Your task to perform on an android device: Go to wifi settings Image 0: 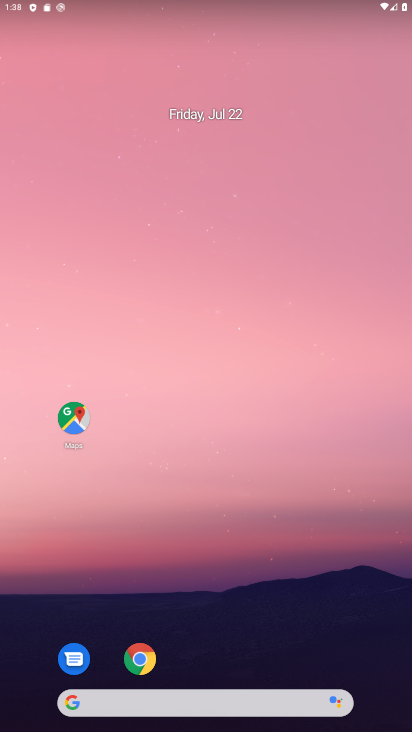
Step 0: drag from (286, 707) to (163, 125)
Your task to perform on an android device: Go to wifi settings Image 1: 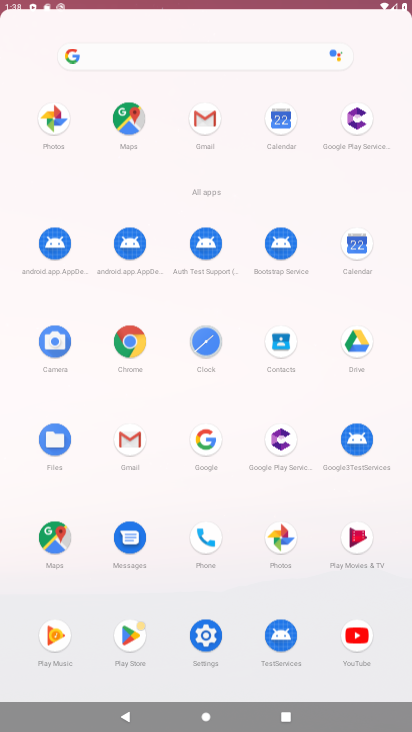
Step 1: drag from (202, 289) to (189, 158)
Your task to perform on an android device: Go to wifi settings Image 2: 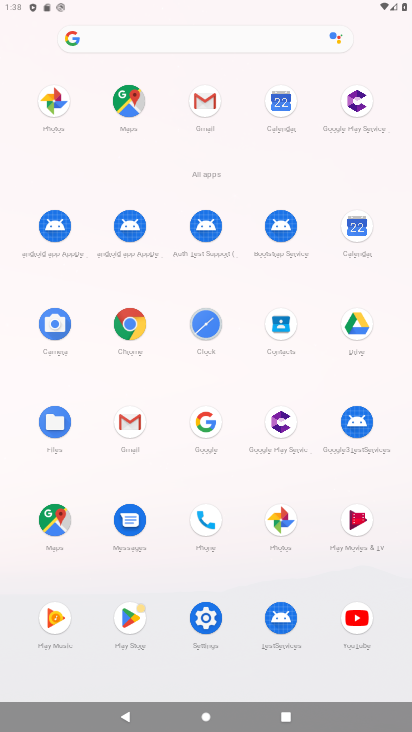
Step 2: drag from (259, 192) to (171, 52)
Your task to perform on an android device: Go to wifi settings Image 3: 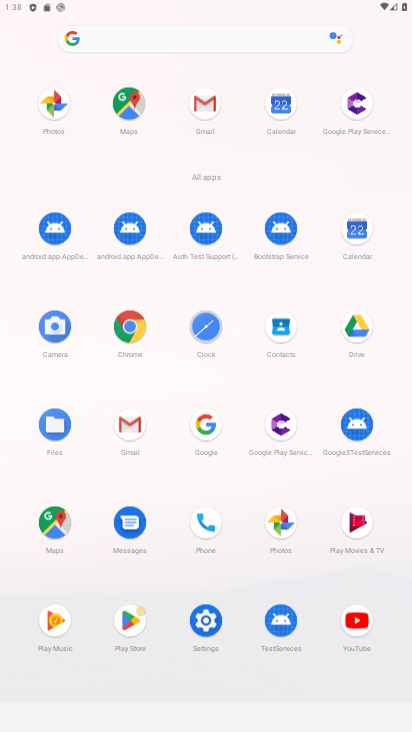
Step 3: drag from (187, 295) to (171, 0)
Your task to perform on an android device: Go to wifi settings Image 4: 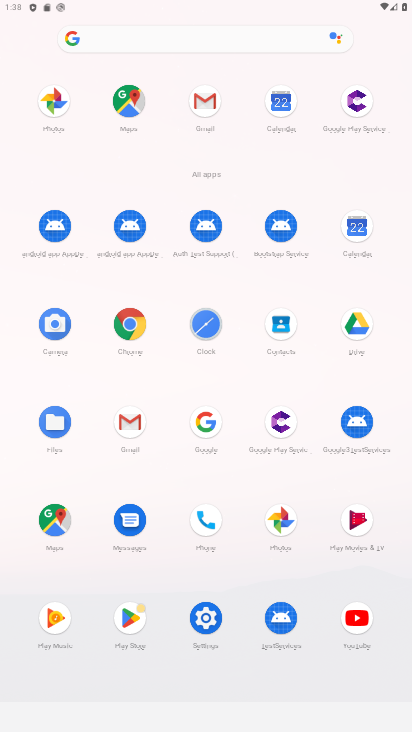
Step 4: click (207, 618)
Your task to perform on an android device: Go to wifi settings Image 5: 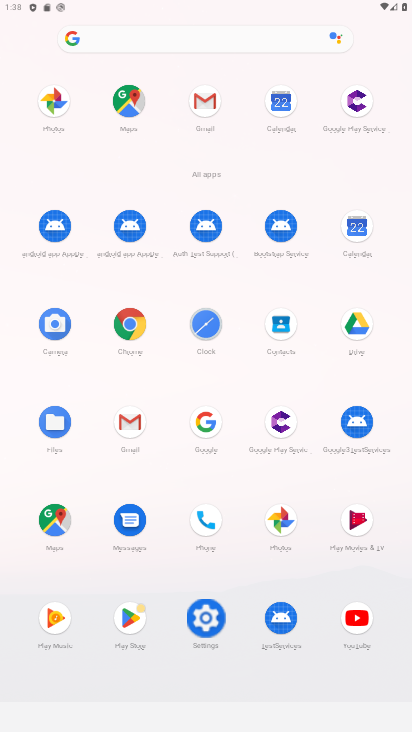
Step 5: click (207, 618)
Your task to perform on an android device: Go to wifi settings Image 6: 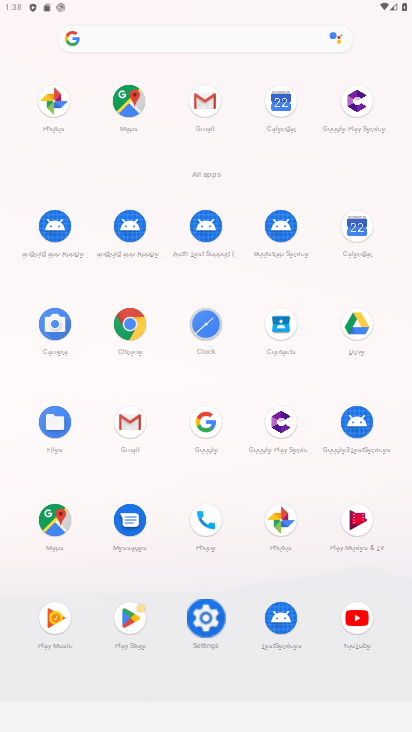
Step 6: click (207, 618)
Your task to perform on an android device: Go to wifi settings Image 7: 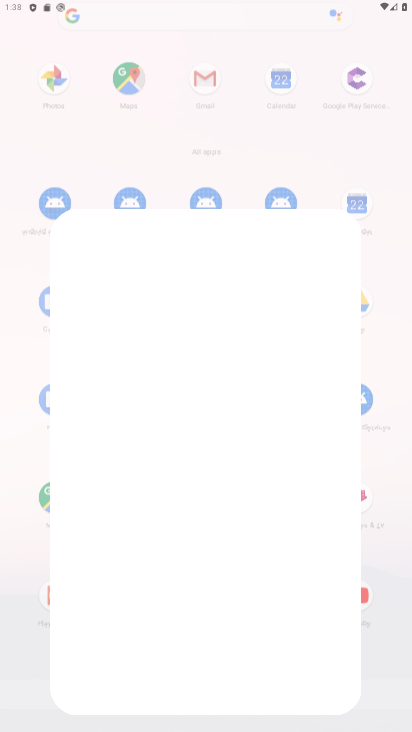
Step 7: click (209, 615)
Your task to perform on an android device: Go to wifi settings Image 8: 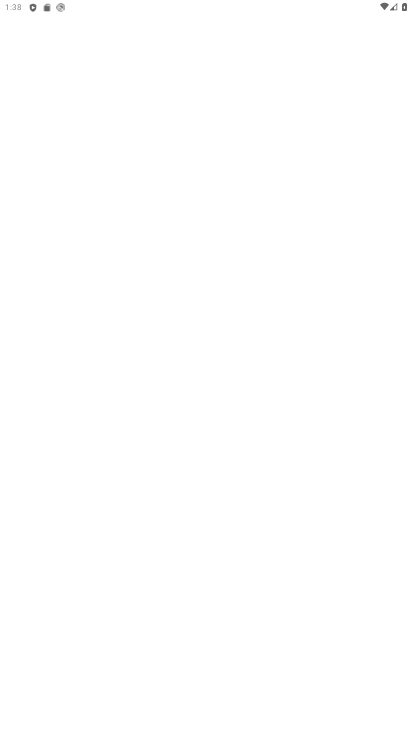
Step 8: click (211, 615)
Your task to perform on an android device: Go to wifi settings Image 9: 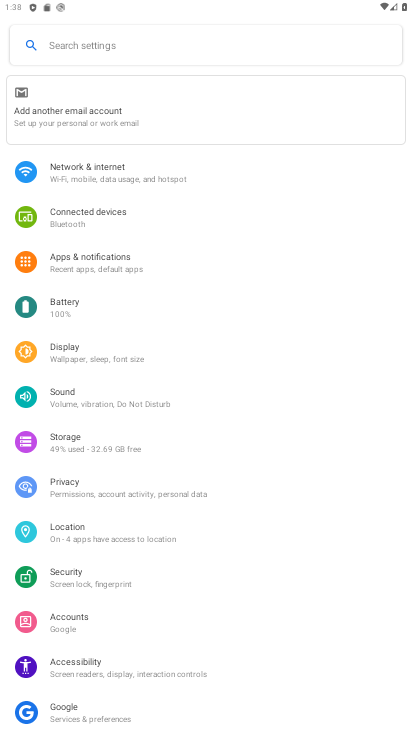
Step 9: click (72, 178)
Your task to perform on an android device: Go to wifi settings Image 10: 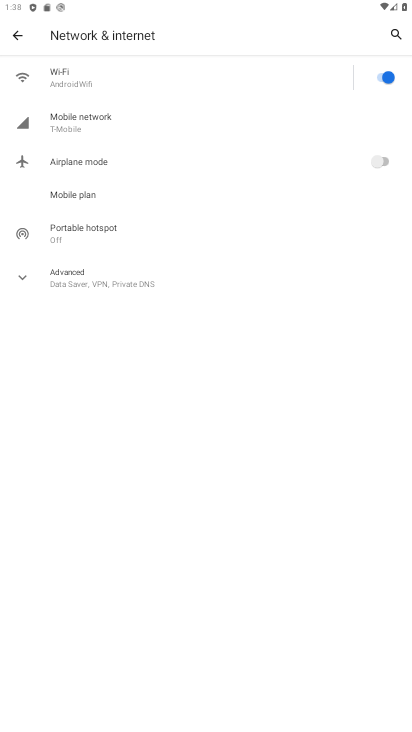
Step 10: task complete